Your task to perform on an android device: Open eBay Image 0: 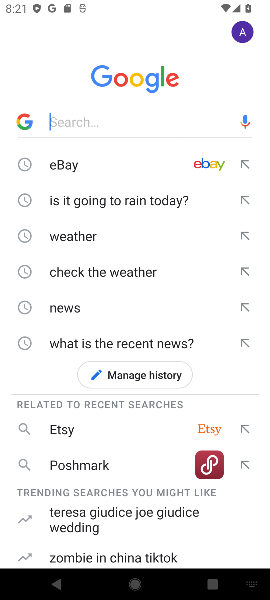
Step 0: click (198, 168)
Your task to perform on an android device: Open eBay Image 1: 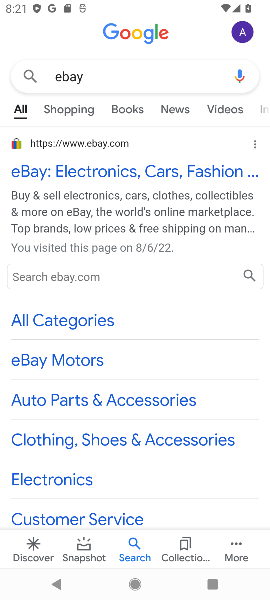
Step 1: click (73, 149)
Your task to perform on an android device: Open eBay Image 2: 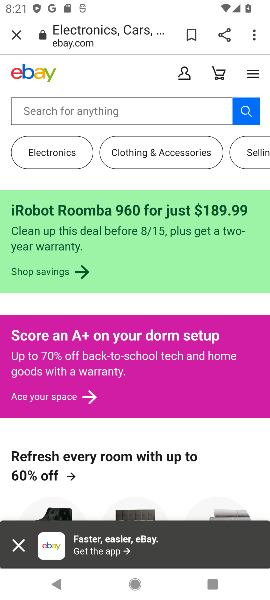
Step 2: task complete